Your task to perform on an android device: add a contact in the contacts app Image 0: 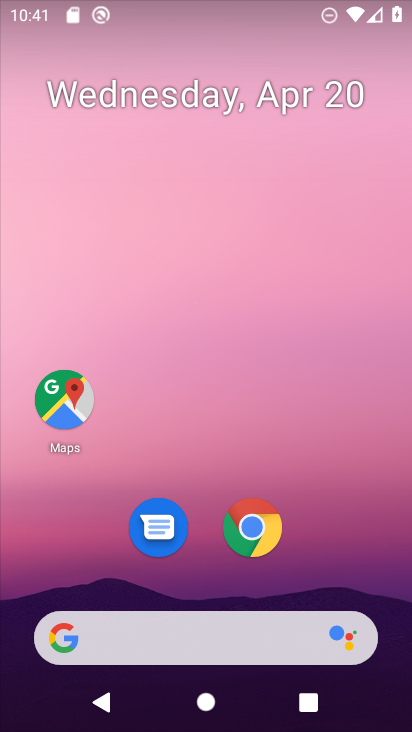
Step 0: drag from (205, 576) to (323, 49)
Your task to perform on an android device: add a contact in the contacts app Image 1: 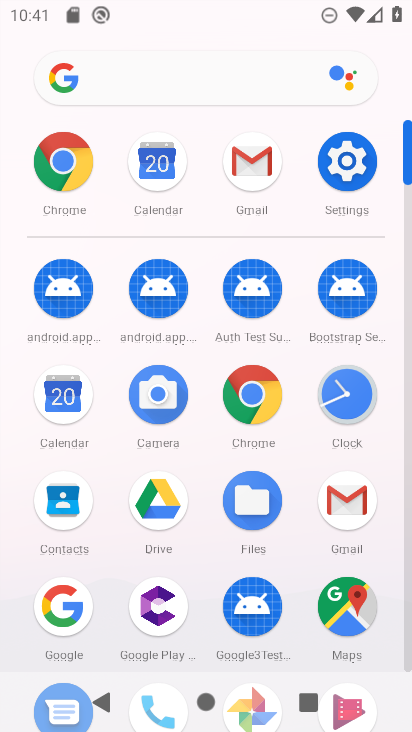
Step 1: click (68, 513)
Your task to perform on an android device: add a contact in the contacts app Image 2: 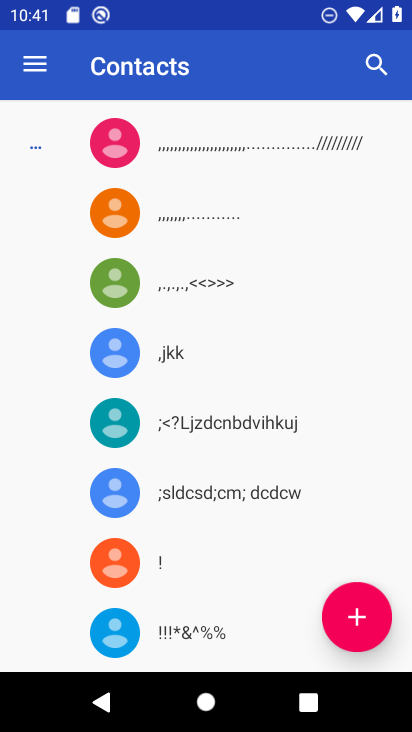
Step 2: click (346, 617)
Your task to perform on an android device: add a contact in the contacts app Image 3: 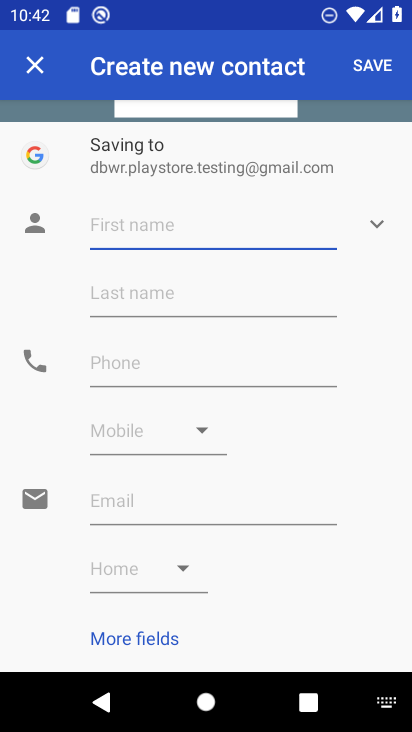
Step 3: type "claden"
Your task to perform on an android device: add a contact in the contacts app Image 4: 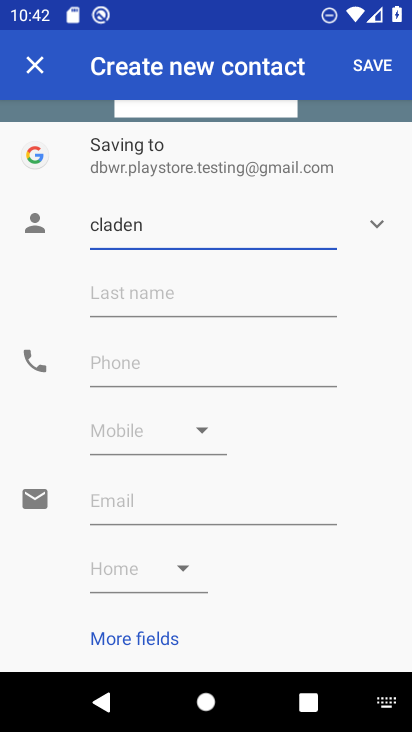
Step 4: click (359, 59)
Your task to perform on an android device: add a contact in the contacts app Image 5: 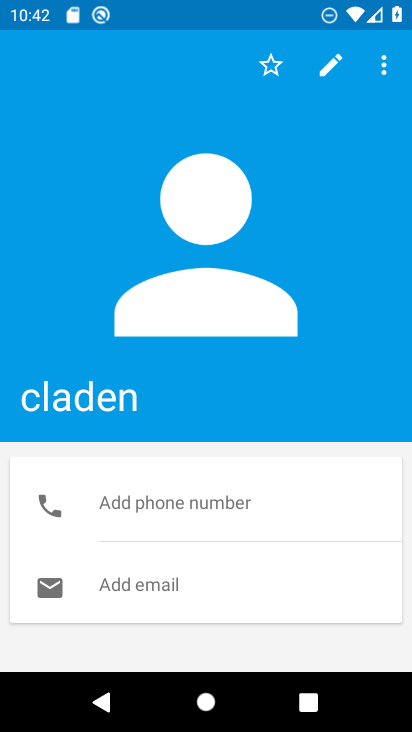
Step 5: task complete